Your task to perform on an android device: toggle pop-ups in chrome Image 0: 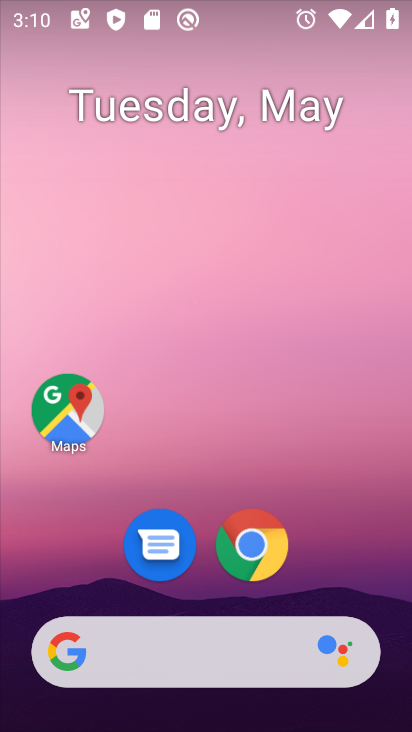
Step 0: click (272, 545)
Your task to perform on an android device: toggle pop-ups in chrome Image 1: 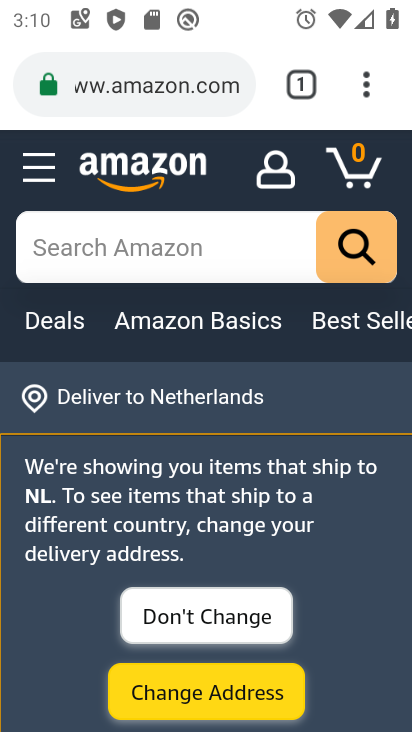
Step 1: drag from (370, 94) to (121, 591)
Your task to perform on an android device: toggle pop-ups in chrome Image 2: 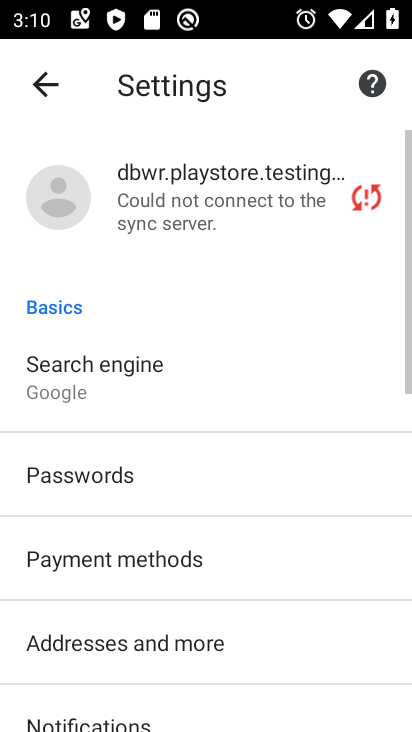
Step 2: drag from (196, 573) to (246, 368)
Your task to perform on an android device: toggle pop-ups in chrome Image 3: 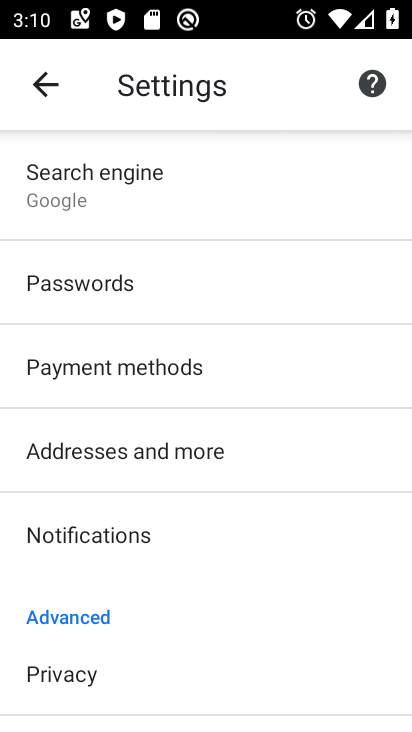
Step 3: drag from (177, 591) to (181, 378)
Your task to perform on an android device: toggle pop-ups in chrome Image 4: 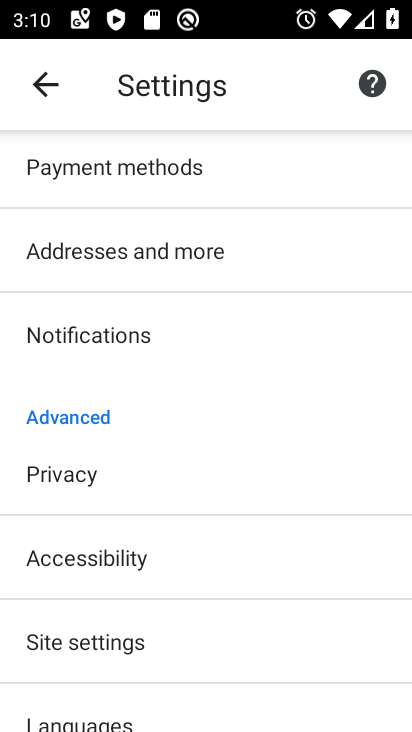
Step 4: click (137, 640)
Your task to perform on an android device: toggle pop-ups in chrome Image 5: 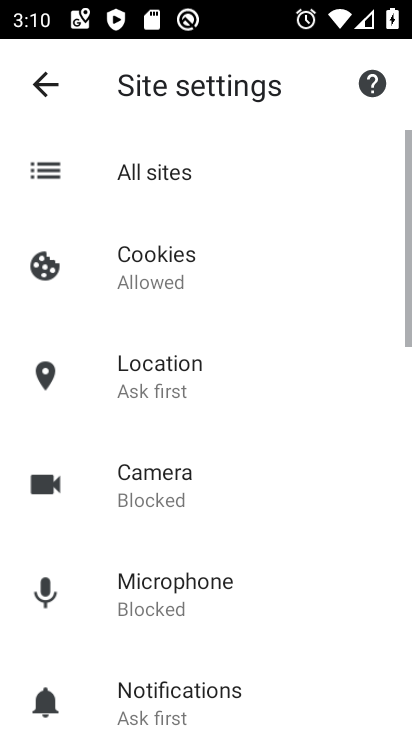
Step 5: drag from (226, 597) to (220, 204)
Your task to perform on an android device: toggle pop-ups in chrome Image 6: 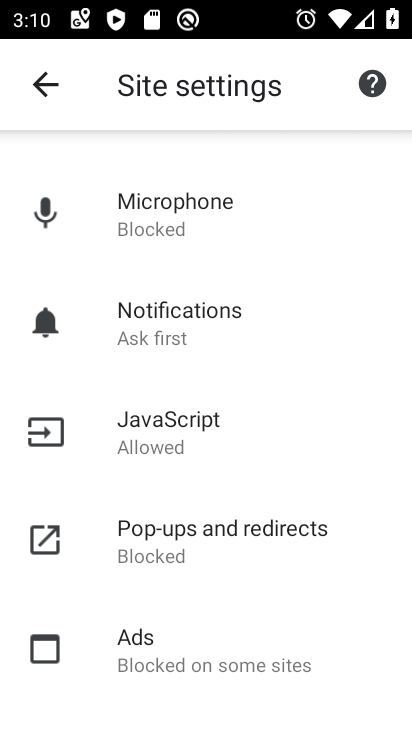
Step 6: click (221, 563)
Your task to perform on an android device: toggle pop-ups in chrome Image 7: 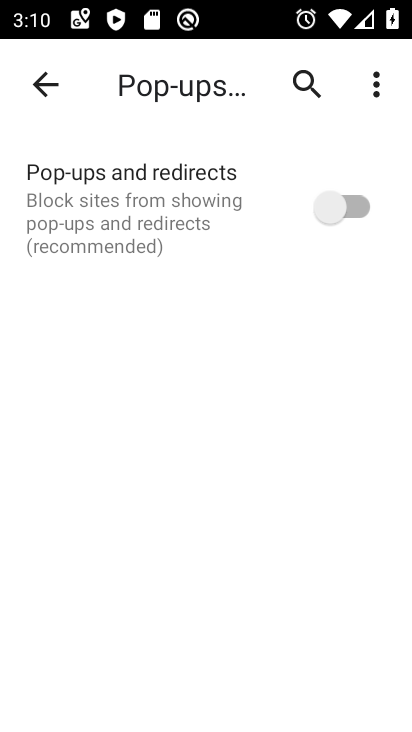
Step 7: click (348, 213)
Your task to perform on an android device: toggle pop-ups in chrome Image 8: 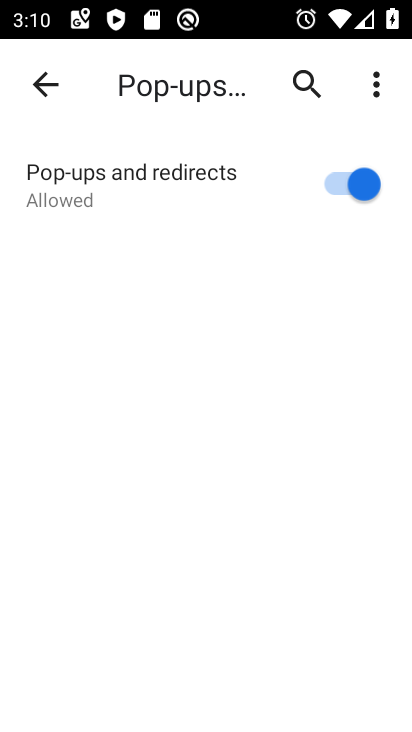
Step 8: task complete